Your task to perform on an android device: set default search engine in the chrome app Image 0: 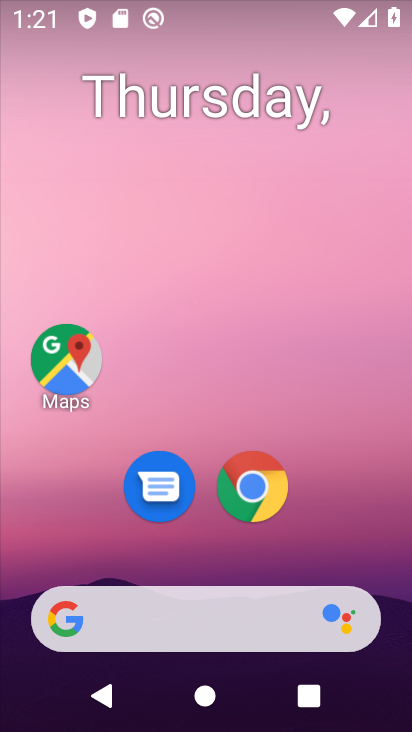
Step 0: click (278, 505)
Your task to perform on an android device: set default search engine in the chrome app Image 1: 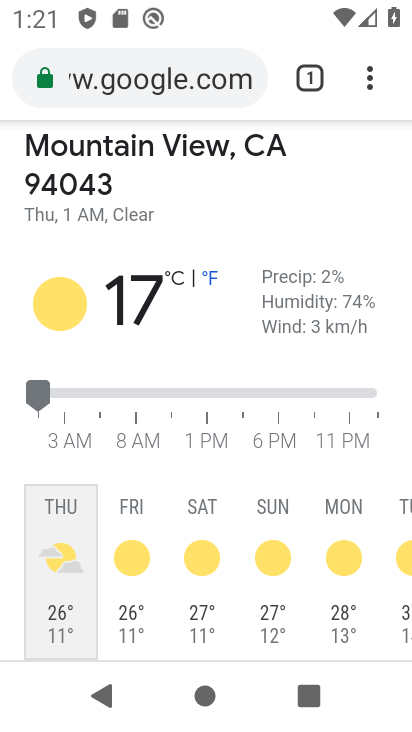
Step 1: click (368, 89)
Your task to perform on an android device: set default search engine in the chrome app Image 2: 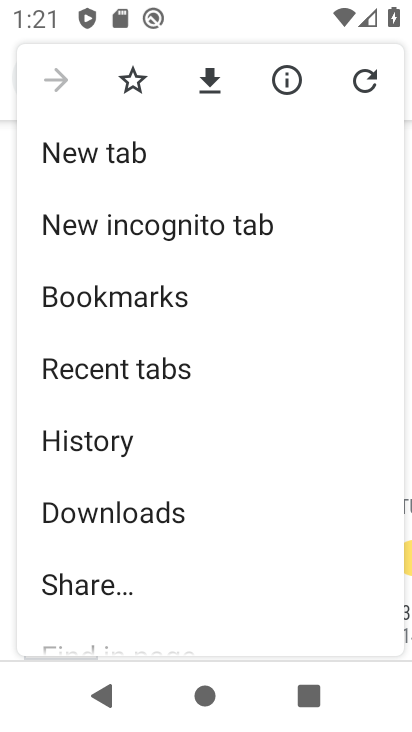
Step 2: drag from (240, 622) to (220, 183)
Your task to perform on an android device: set default search engine in the chrome app Image 3: 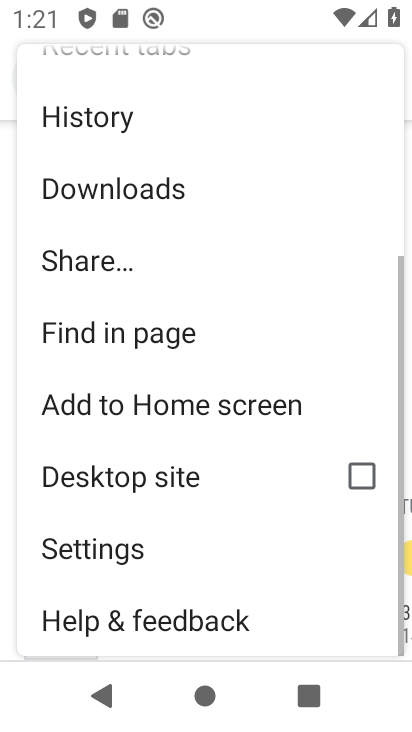
Step 3: click (156, 548)
Your task to perform on an android device: set default search engine in the chrome app Image 4: 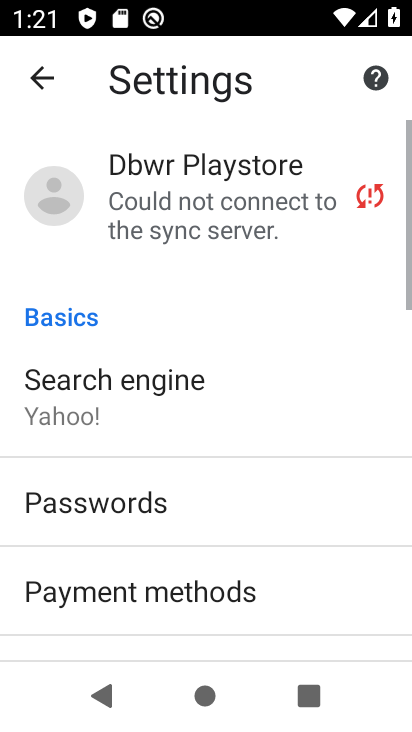
Step 4: click (206, 431)
Your task to perform on an android device: set default search engine in the chrome app Image 5: 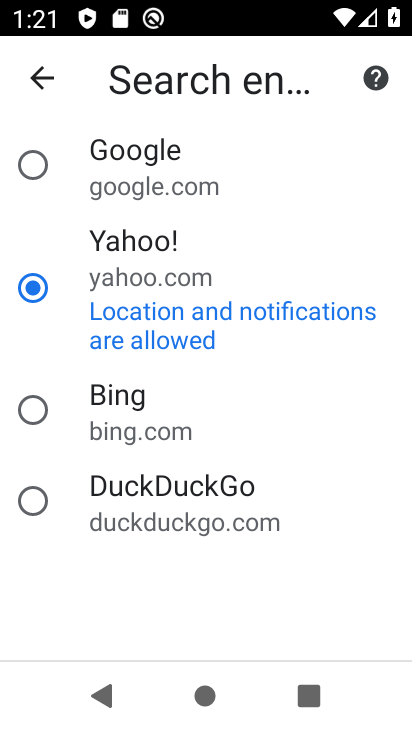
Step 5: click (157, 173)
Your task to perform on an android device: set default search engine in the chrome app Image 6: 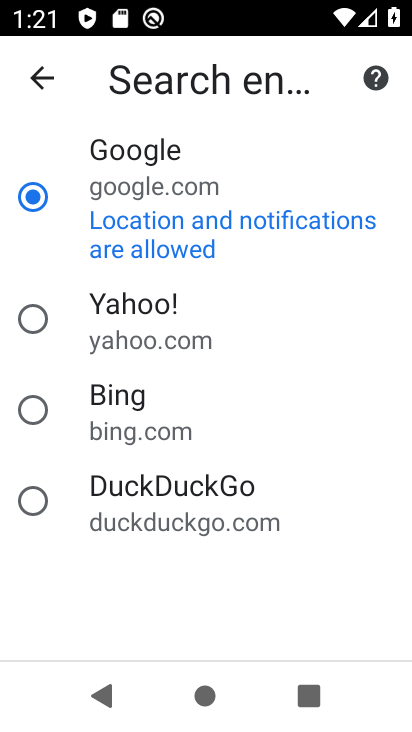
Step 6: task complete